Your task to perform on an android device: turn pop-ups off in chrome Image 0: 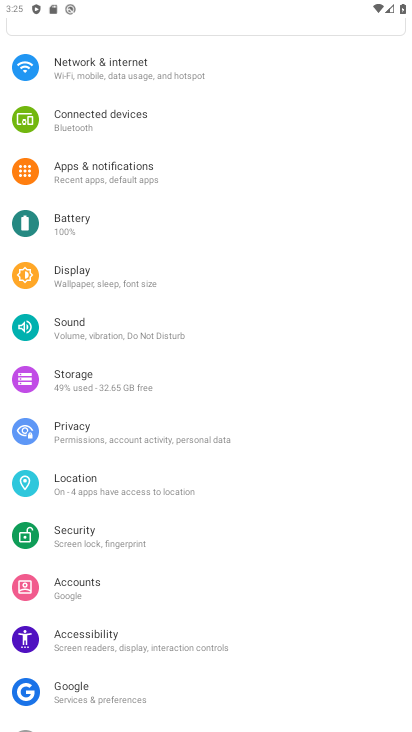
Step 0: press back button
Your task to perform on an android device: turn pop-ups off in chrome Image 1: 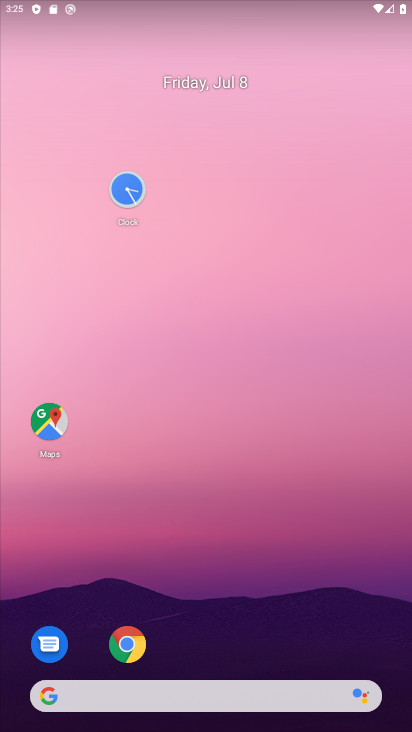
Step 1: drag from (285, 585) to (220, 10)
Your task to perform on an android device: turn pop-ups off in chrome Image 2: 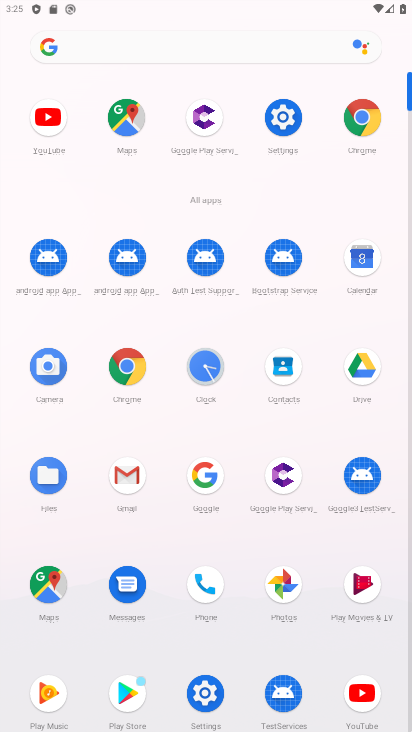
Step 2: click (271, 112)
Your task to perform on an android device: turn pop-ups off in chrome Image 3: 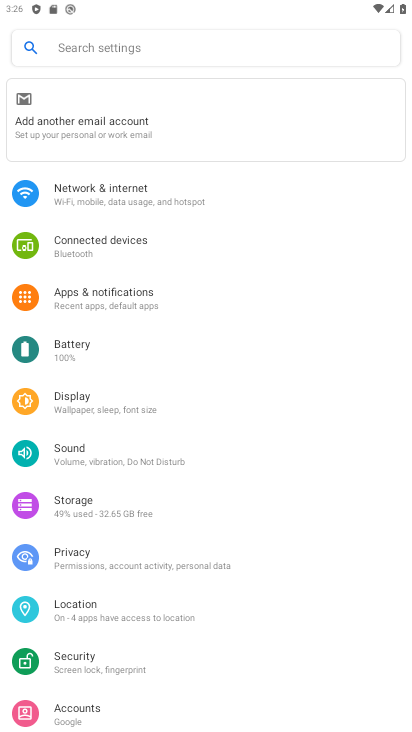
Step 3: press home button
Your task to perform on an android device: turn pop-ups off in chrome Image 4: 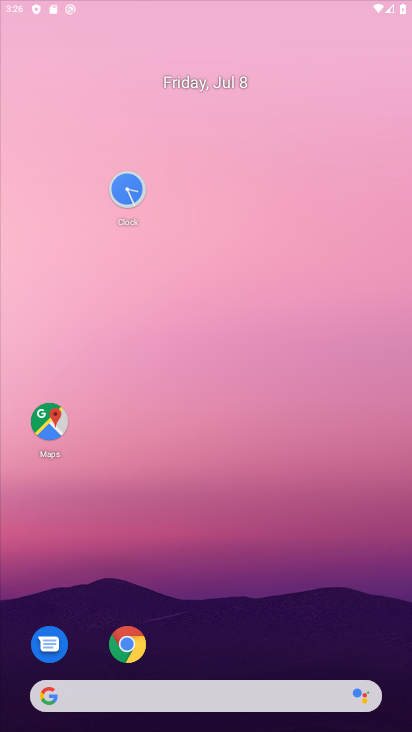
Step 4: press home button
Your task to perform on an android device: turn pop-ups off in chrome Image 5: 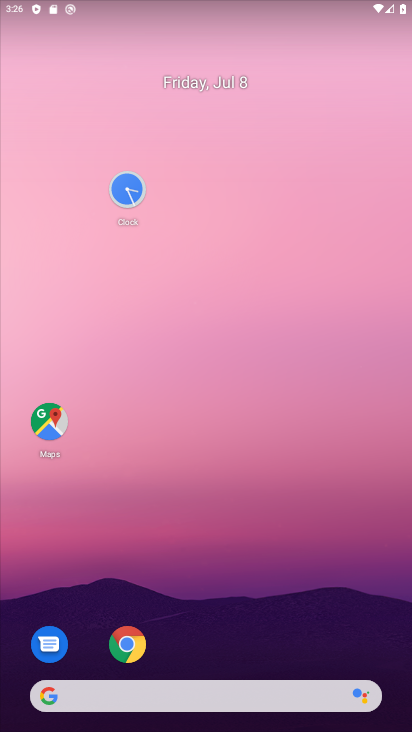
Step 5: drag from (112, 256) to (72, 106)
Your task to perform on an android device: turn pop-ups off in chrome Image 6: 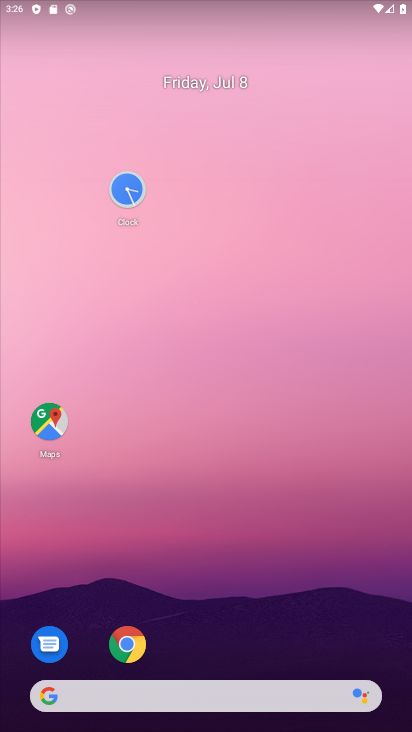
Step 6: drag from (196, 676) to (255, 242)
Your task to perform on an android device: turn pop-ups off in chrome Image 7: 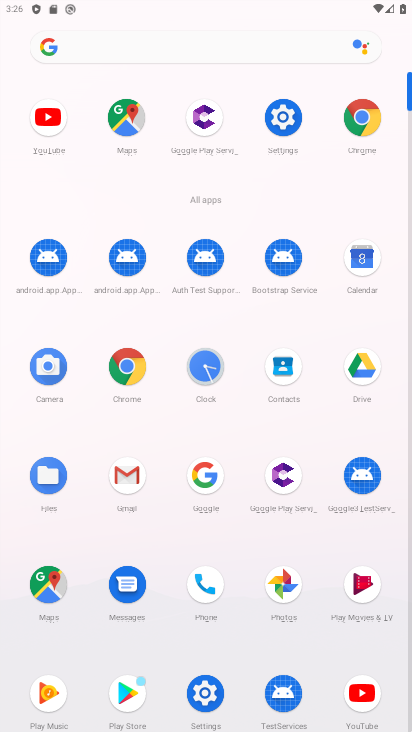
Step 7: click (347, 122)
Your task to perform on an android device: turn pop-ups off in chrome Image 8: 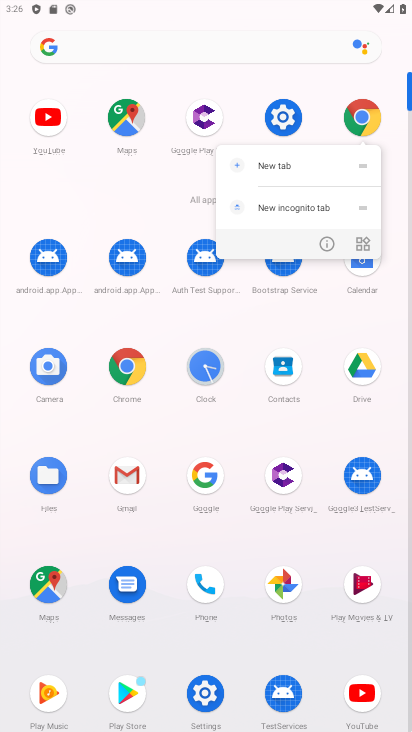
Step 8: click (360, 115)
Your task to perform on an android device: turn pop-ups off in chrome Image 9: 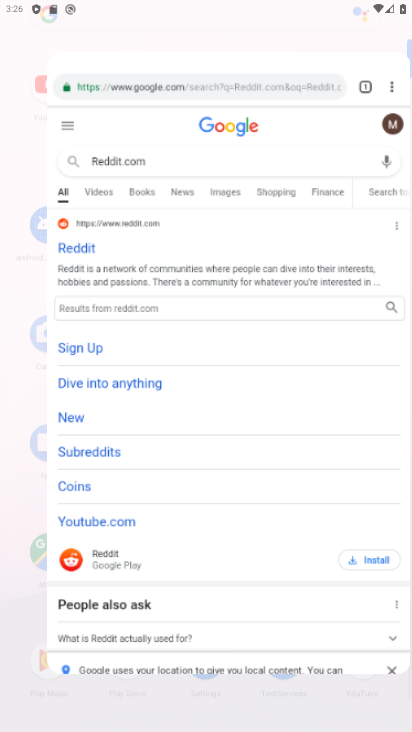
Step 9: click (360, 111)
Your task to perform on an android device: turn pop-ups off in chrome Image 10: 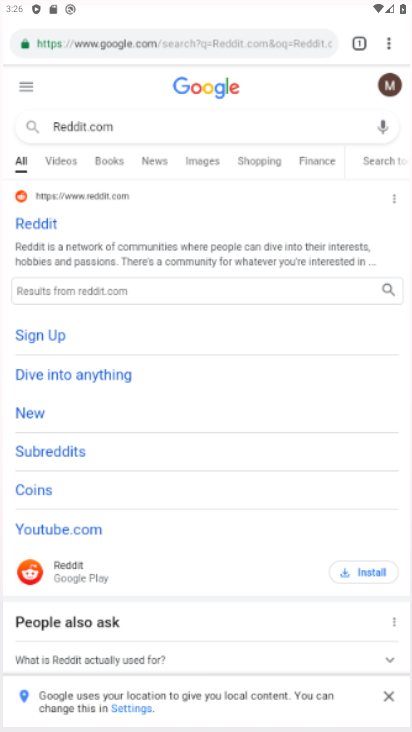
Step 10: click (363, 111)
Your task to perform on an android device: turn pop-ups off in chrome Image 11: 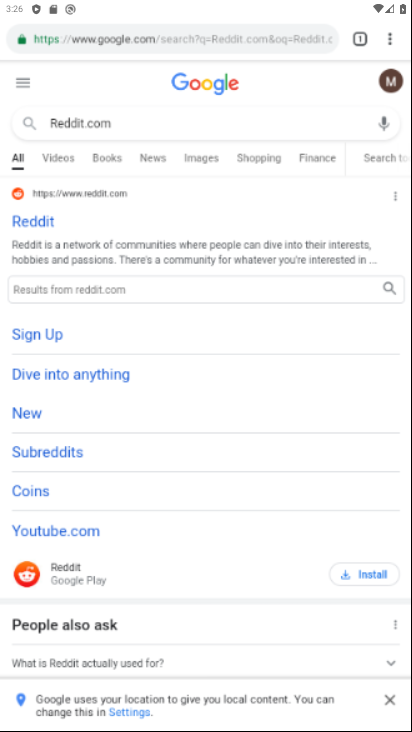
Step 11: click (364, 114)
Your task to perform on an android device: turn pop-ups off in chrome Image 12: 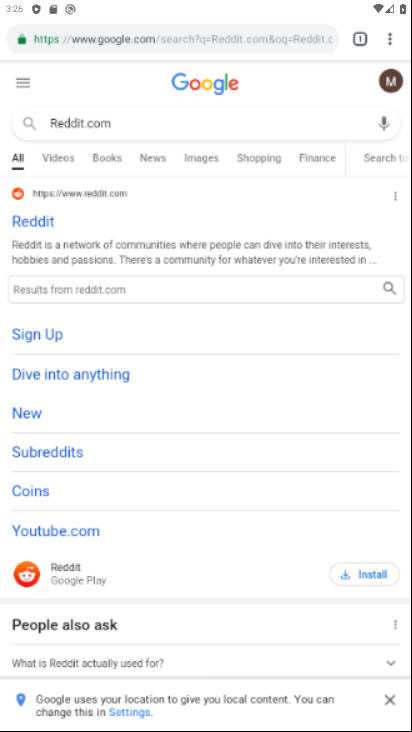
Step 12: click (365, 115)
Your task to perform on an android device: turn pop-ups off in chrome Image 13: 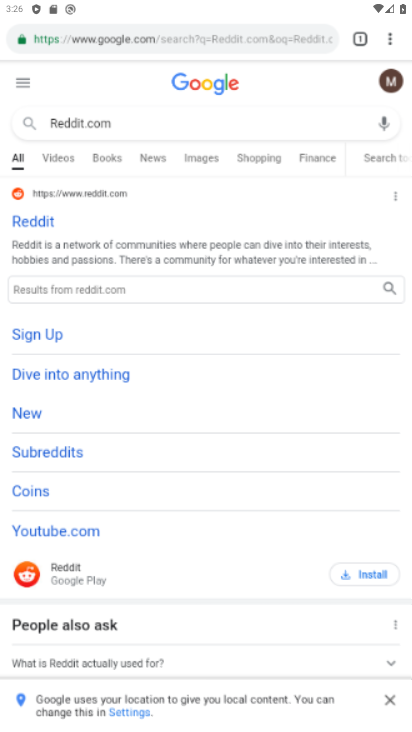
Step 13: click (367, 115)
Your task to perform on an android device: turn pop-ups off in chrome Image 14: 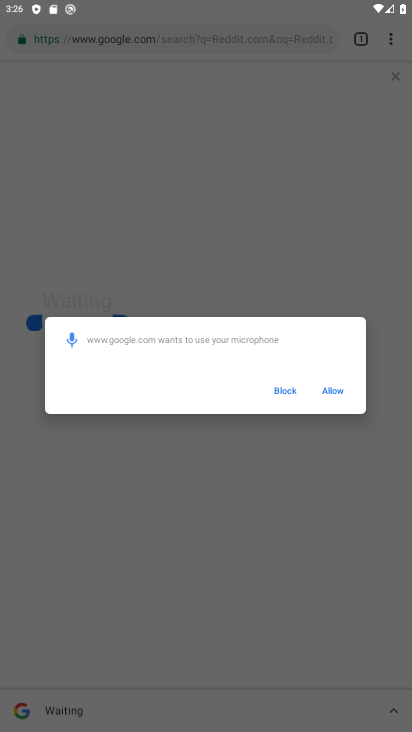
Step 14: drag from (388, 39) to (366, 114)
Your task to perform on an android device: turn pop-ups off in chrome Image 15: 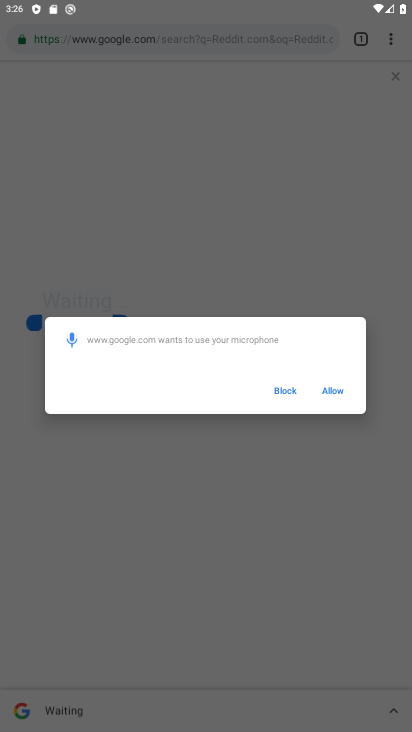
Step 15: click (379, 43)
Your task to perform on an android device: turn pop-ups off in chrome Image 16: 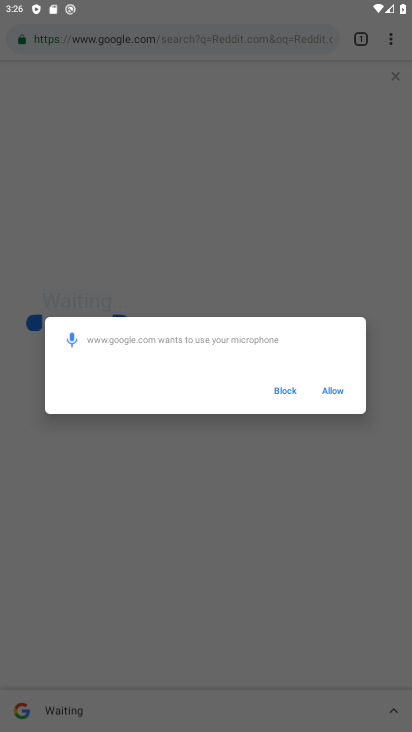
Step 16: click (389, 39)
Your task to perform on an android device: turn pop-ups off in chrome Image 17: 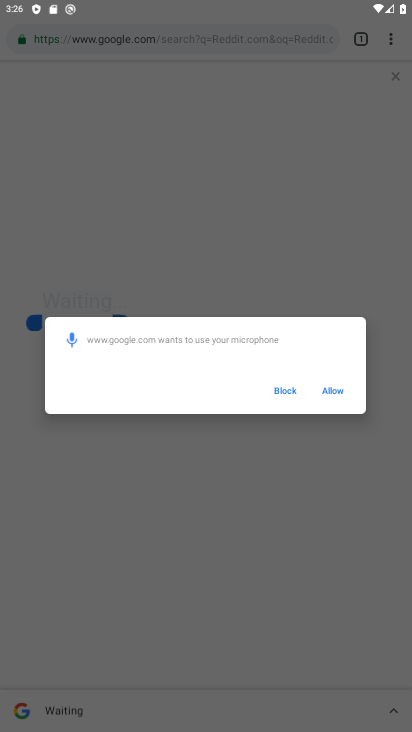
Step 17: drag from (391, 41) to (395, 247)
Your task to perform on an android device: turn pop-ups off in chrome Image 18: 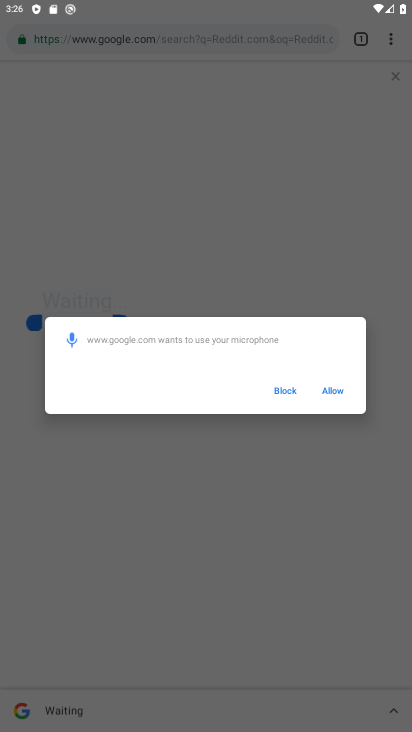
Step 18: click (286, 388)
Your task to perform on an android device: turn pop-ups off in chrome Image 19: 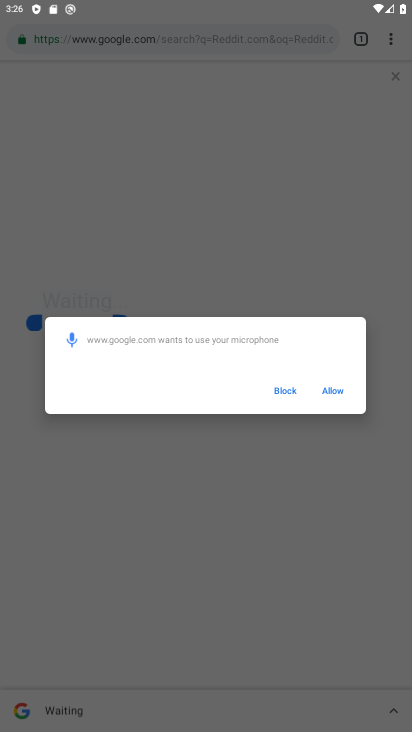
Step 19: click (284, 384)
Your task to perform on an android device: turn pop-ups off in chrome Image 20: 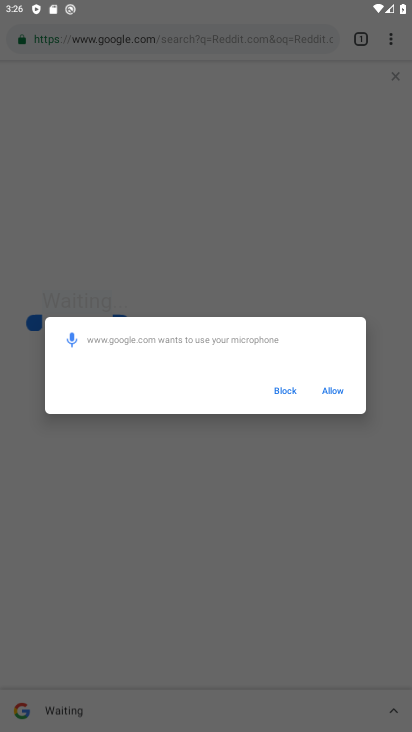
Step 20: click (283, 383)
Your task to perform on an android device: turn pop-ups off in chrome Image 21: 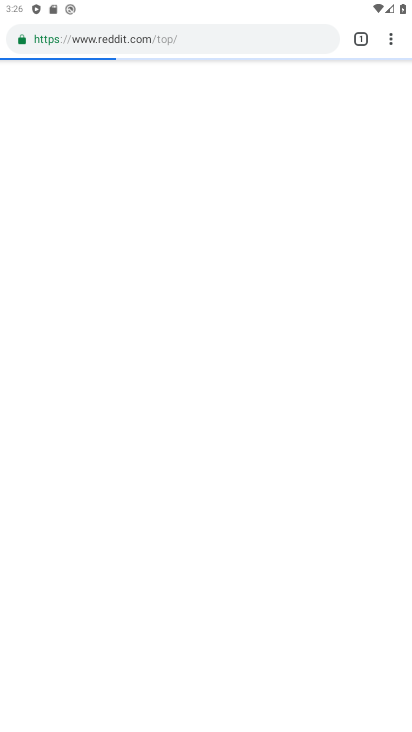
Step 21: click (385, 34)
Your task to perform on an android device: turn pop-ups off in chrome Image 22: 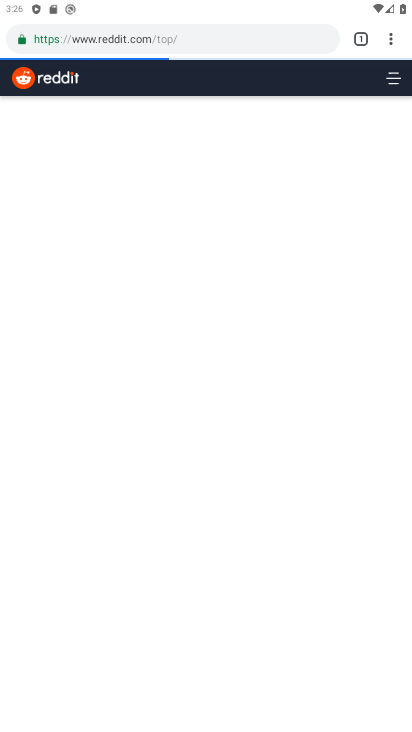
Step 22: click (390, 40)
Your task to perform on an android device: turn pop-ups off in chrome Image 23: 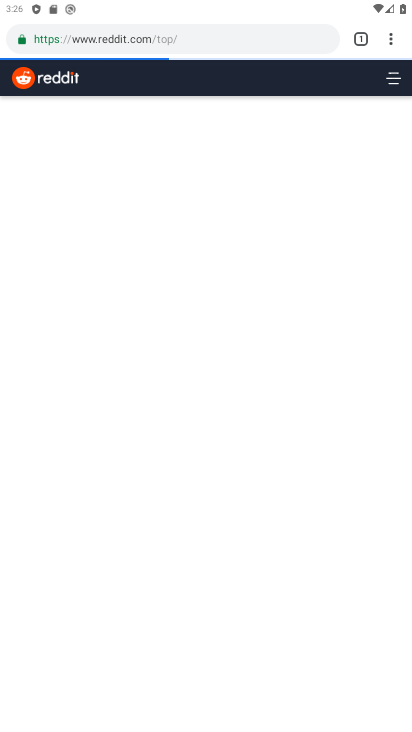
Step 23: click (398, 46)
Your task to perform on an android device: turn pop-ups off in chrome Image 24: 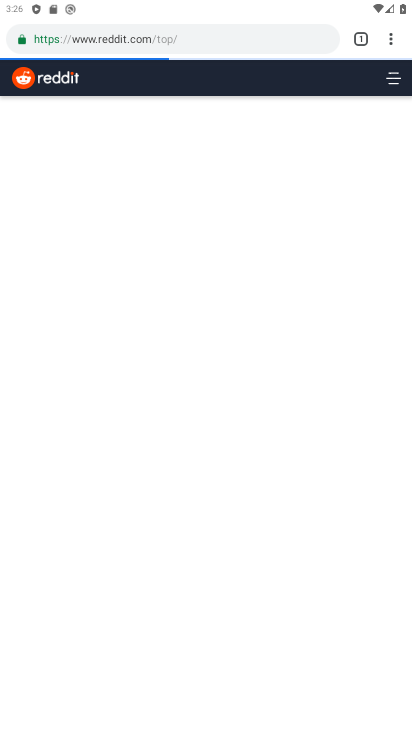
Step 24: click (399, 46)
Your task to perform on an android device: turn pop-ups off in chrome Image 25: 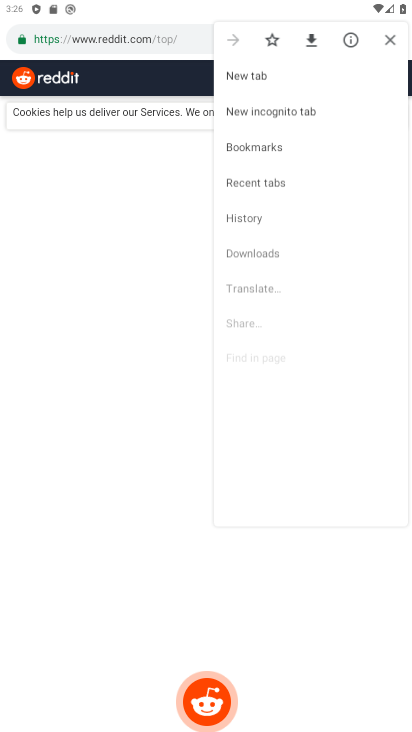
Step 25: click (389, 45)
Your task to perform on an android device: turn pop-ups off in chrome Image 26: 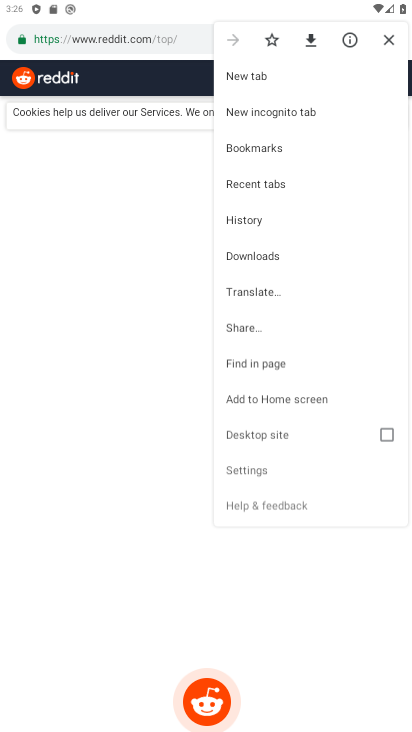
Step 26: click (390, 37)
Your task to perform on an android device: turn pop-ups off in chrome Image 27: 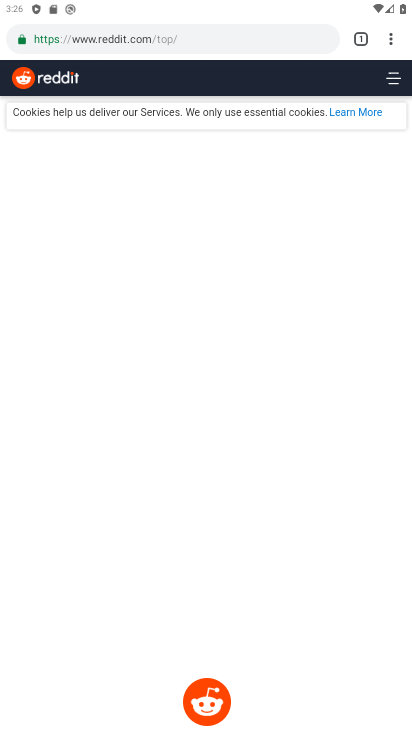
Step 27: drag from (392, 36) to (240, 468)
Your task to perform on an android device: turn pop-ups off in chrome Image 28: 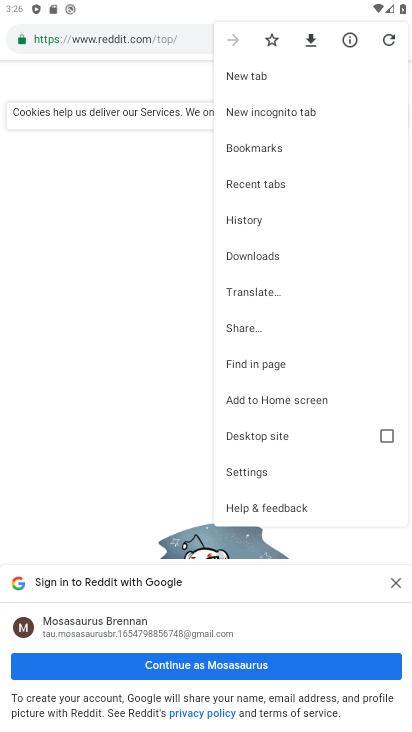
Step 28: click (239, 477)
Your task to perform on an android device: turn pop-ups off in chrome Image 29: 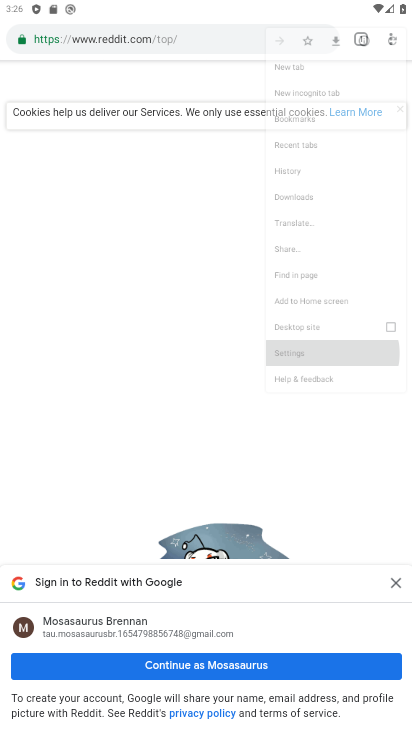
Step 29: click (248, 467)
Your task to perform on an android device: turn pop-ups off in chrome Image 30: 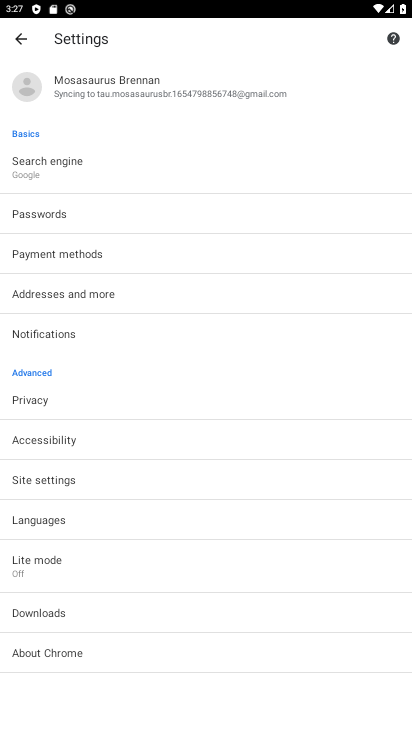
Step 30: task complete